Your task to perform on an android device: turn off location Image 0: 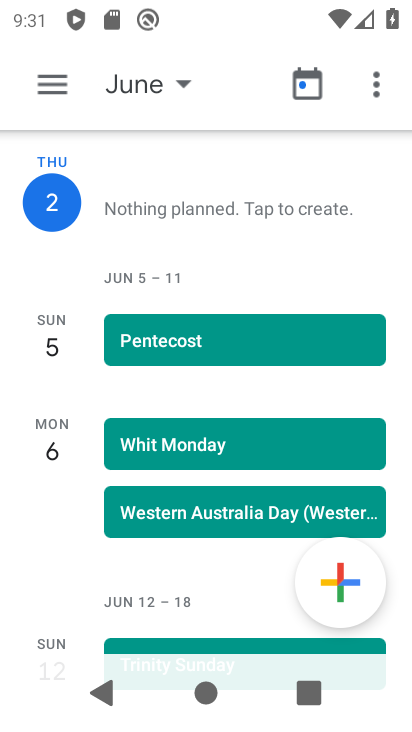
Step 0: press home button
Your task to perform on an android device: turn off location Image 1: 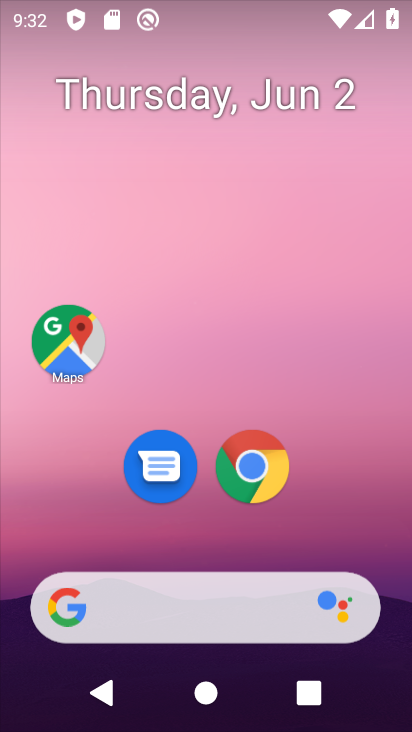
Step 1: drag from (206, 540) to (292, 65)
Your task to perform on an android device: turn off location Image 2: 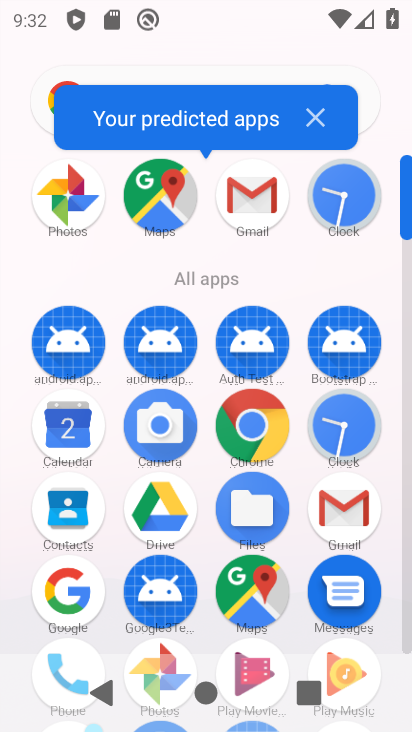
Step 2: drag from (301, 257) to (304, 26)
Your task to perform on an android device: turn off location Image 3: 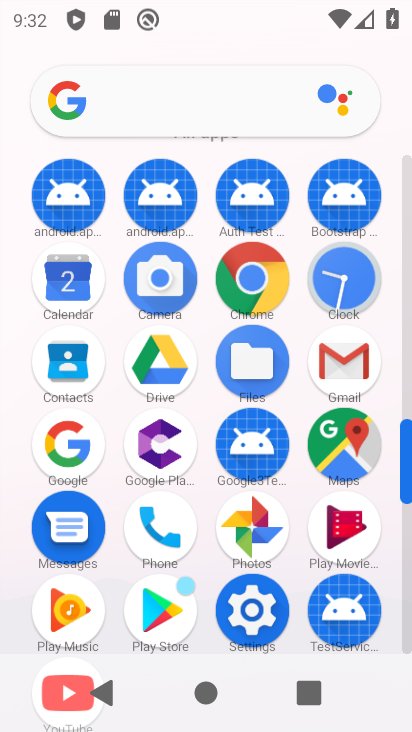
Step 3: click (172, 625)
Your task to perform on an android device: turn off location Image 4: 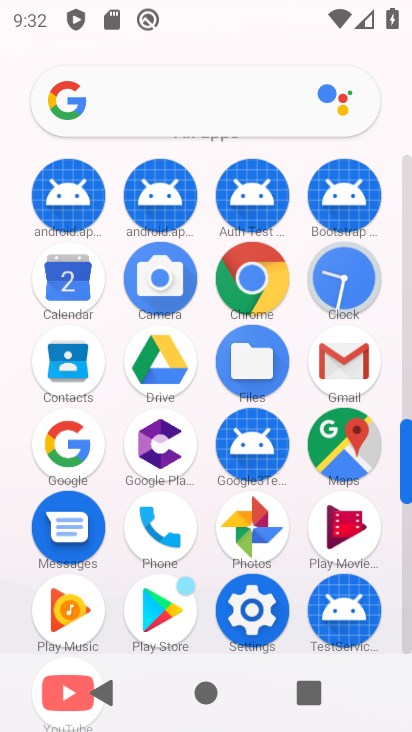
Step 4: drag from (174, 578) to (211, 183)
Your task to perform on an android device: turn off location Image 5: 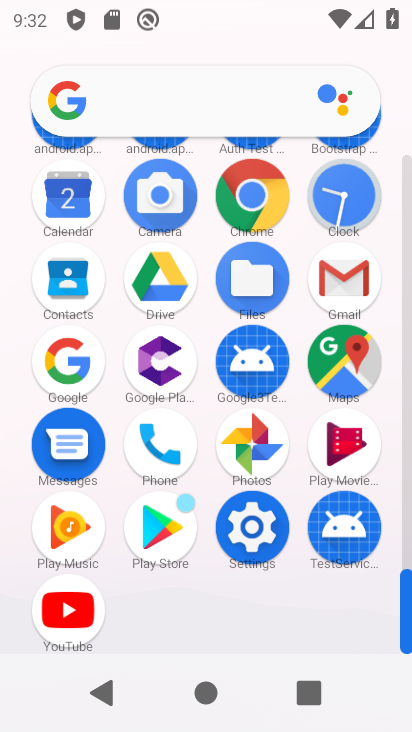
Step 5: click (253, 533)
Your task to perform on an android device: turn off location Image 6: 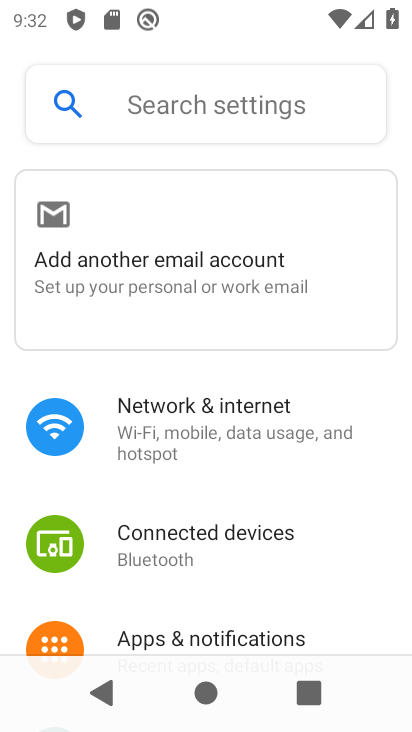
Step 6: drag from (226, 584) to (226, 127)
Your task to perform on an android device: turn off location Image 7: 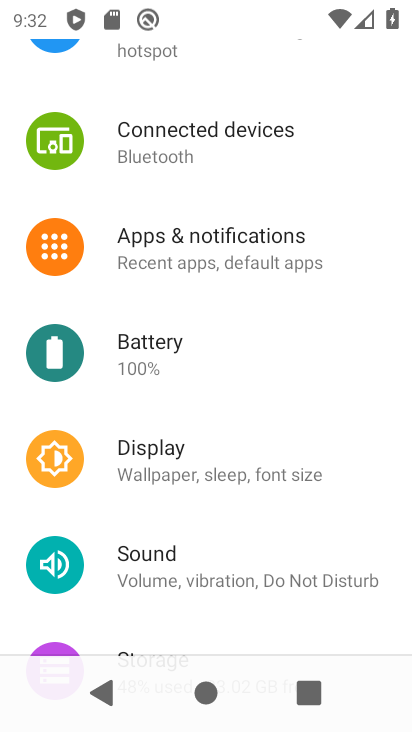
Step 7: drag from (179, 529) to (165, 74)
Your task to perform on an android device: turn off location Image 8: 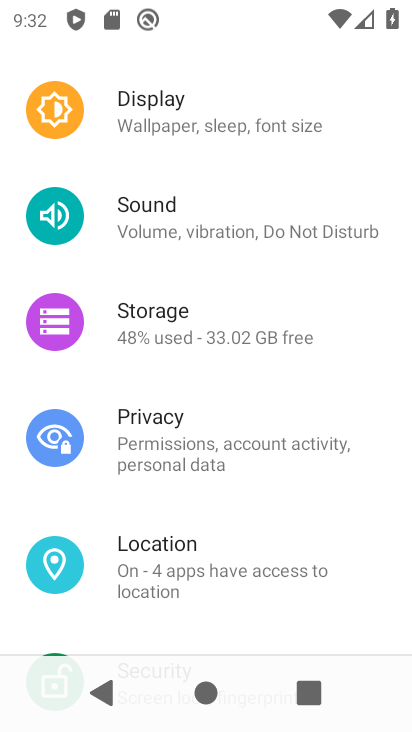
Step 8: drag from (175, 545) to (232, 199)
Your task to perform on an android device: turn off location Image 9: 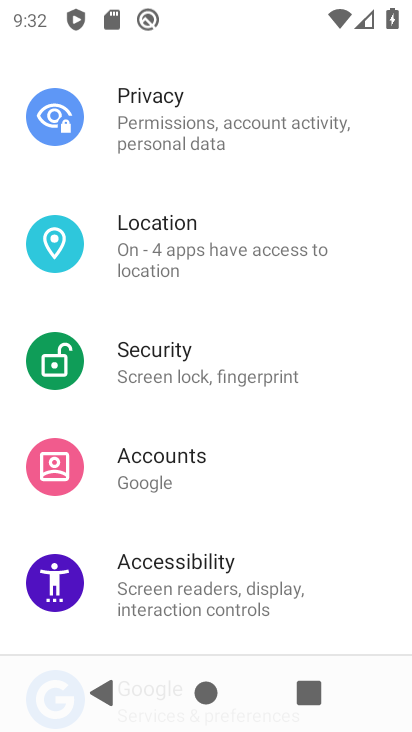
Step 9: click (169, 252)
Your task to perform on an android device: turn off location Image 10: 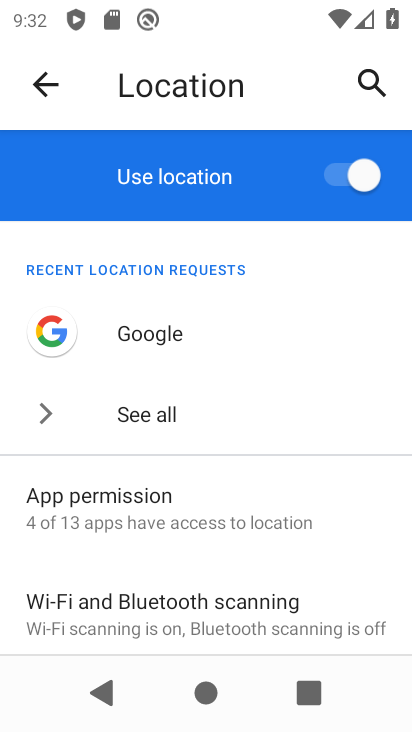
Step 10: click (375, 162)
Your task to perform on an android device: turn off location Image 11: 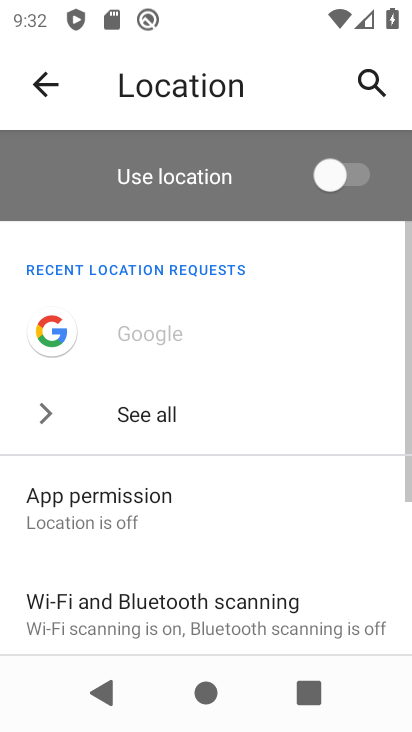
Step 11: task complete